Your task to perform on an android device: toggle pop-ups in chrome Image 0: 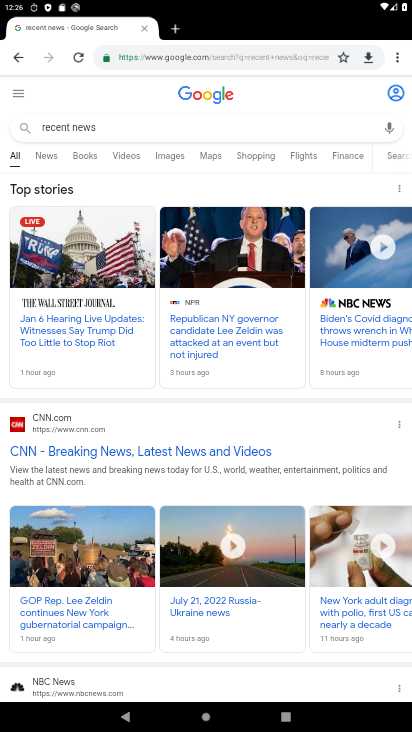
Step 0: press home button
Your task to perform on an android device: toggle pop-ups in chrome Image 1: 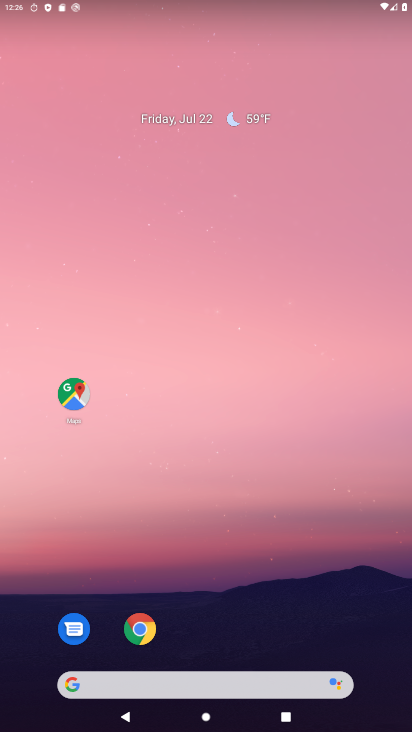
Step 1: drag from (225, 677) to (236, 31)
Your task to perform on an android device: toggle pop-ups in chrome Image 2: 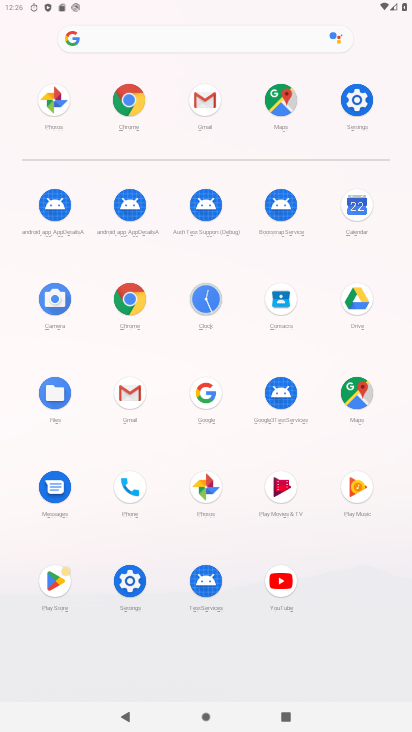
Step 2: click (141, 302)
Your task to perform on an android device: toggle pop-ups in chrome Image 3: 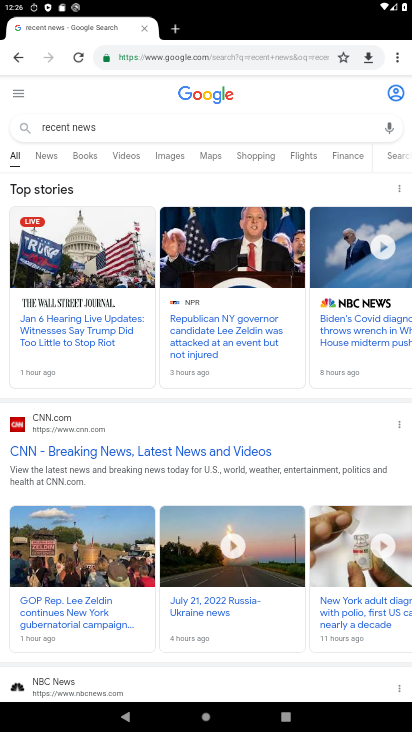
Step 3: drag from (401, 55) to (291, 353)
Your task to perform on an android device: toggle pop-ups in chrome Image 4: 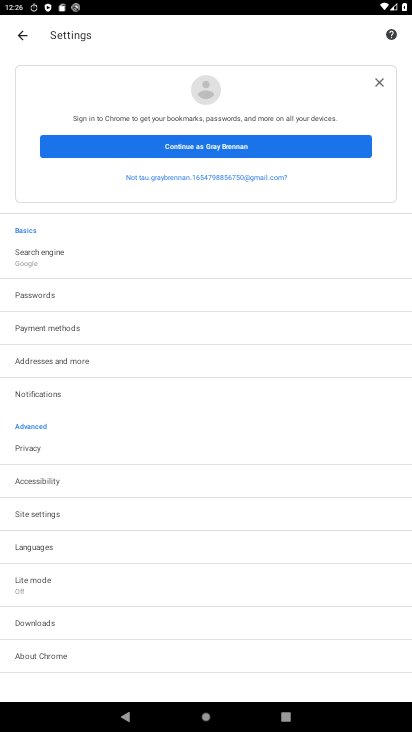
Step 4: click (42, 513)
Your task to perform on an android device: toggle pop-ups in chrome Image 5: 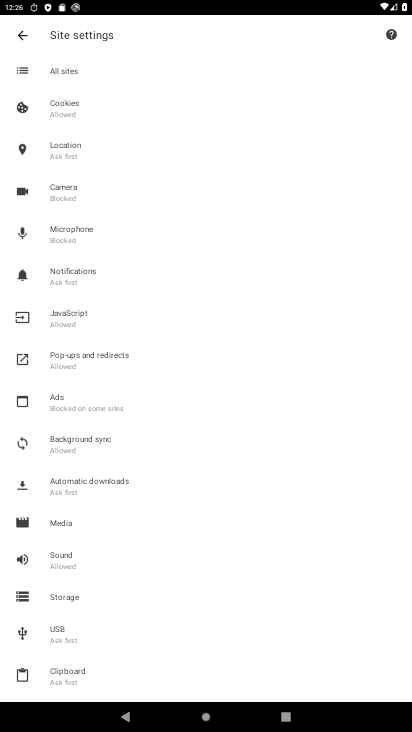
Step 5: click (109, 365)
Your task to perform on an android device: toggle pop-ups in chrome Image 6: 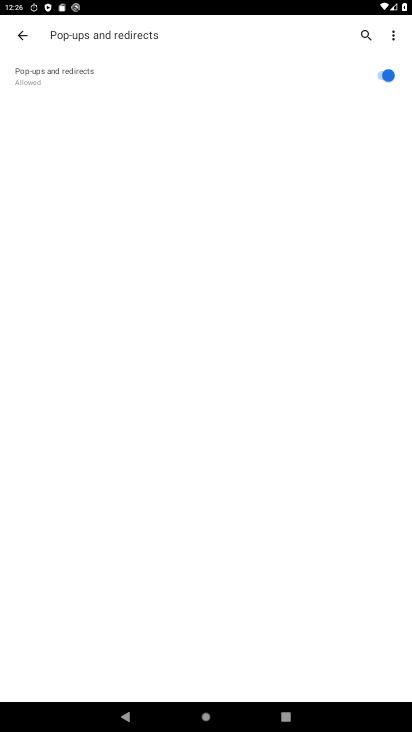
Step 6: click (384, 77)
Your task to perform on an android device: toggle pop-ups in chrome Image 7: 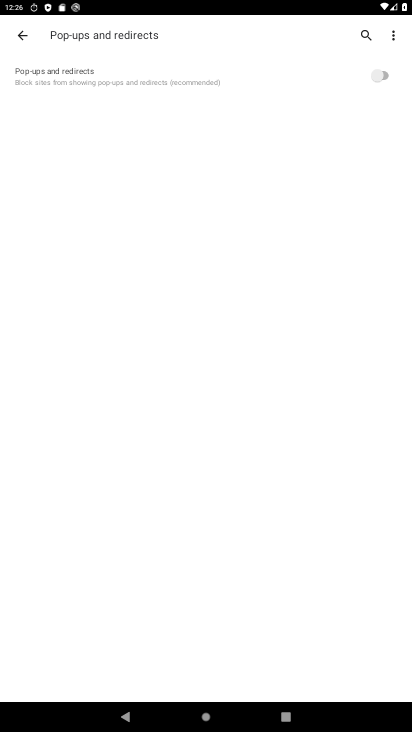
Step 7: task complete